Your task to perform on an android device: View the shopping cart on ebay.com. Image 0: 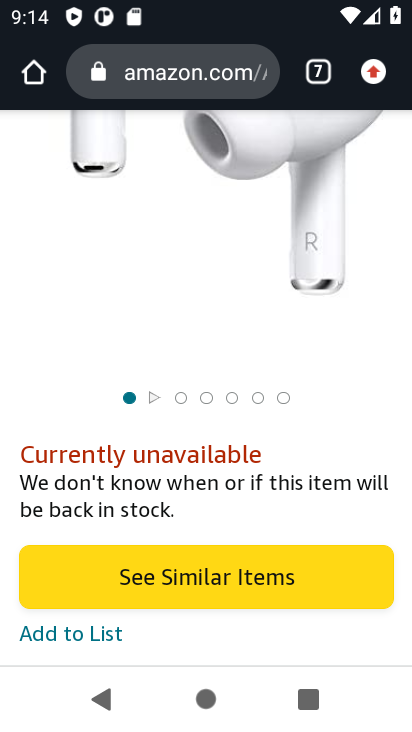
Step 0: press home button
Your task to perform on an android device: View the shopping cart on ebay.com. Image 1: 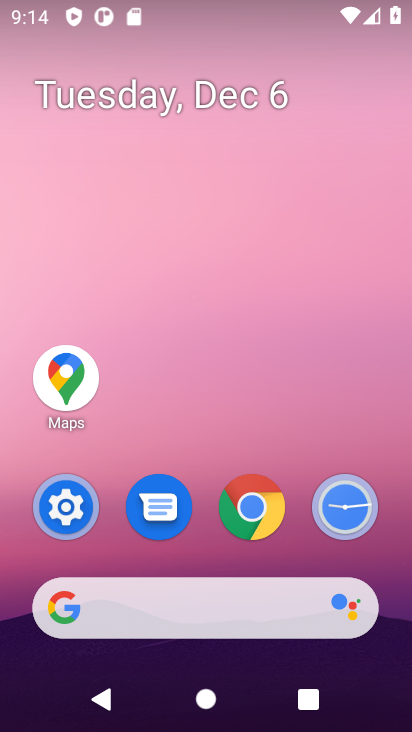
Step 1: click (106, 602)
Your task to perform on an android device: View the shopping cart on ebay.com. Image 2: 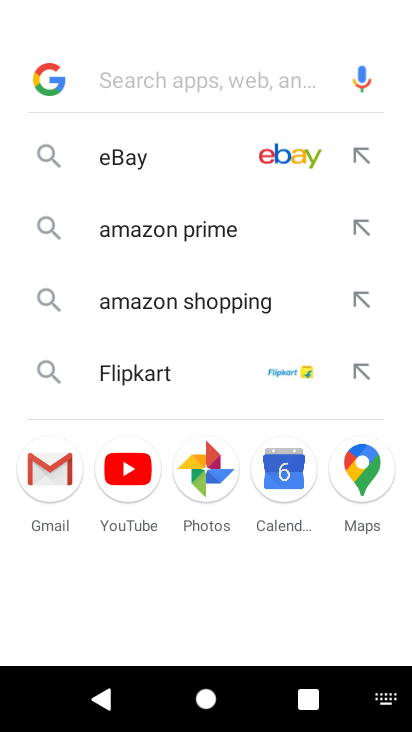
Step 2: click (150, 161)
Your task to perform on an android device: View the shopping cart on ebay.com. Image 3: 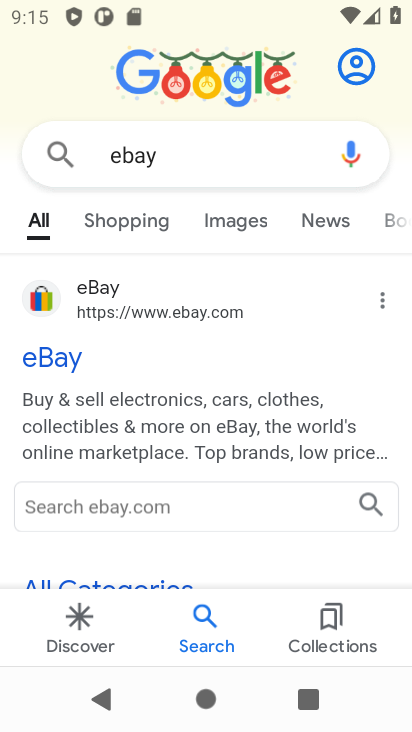
Step 3: click (53, 359)
Your task to perform on an android device: View the shopping cart on ebay.com. Image 4: 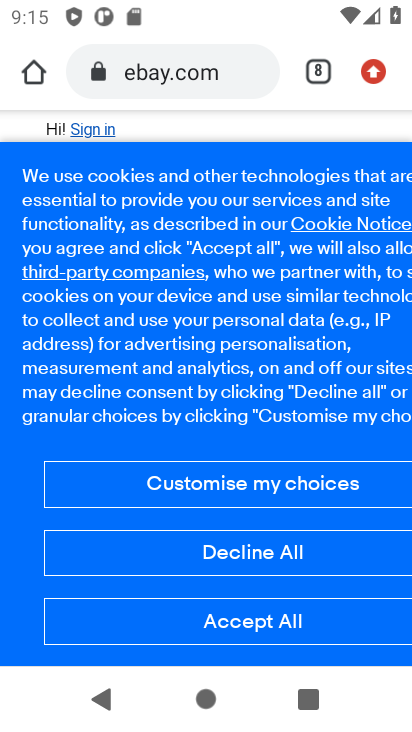
Step 4: click (291, 628)
Your task to perform on an android device: View the shopping cart on ebay.com. Image 5: 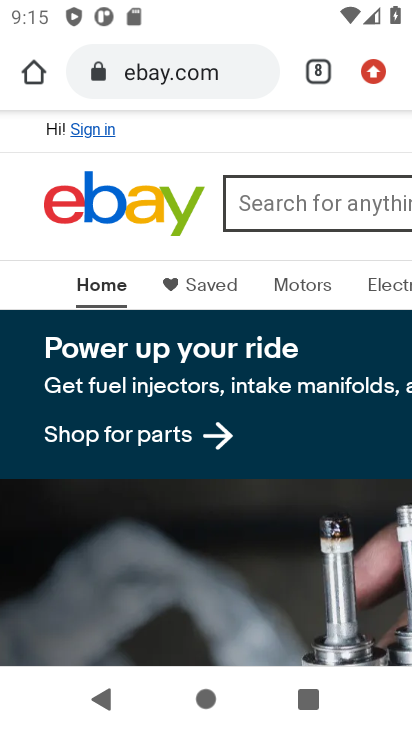
Step 5: drag from (186, 236) to (24, 216)
Your task to perform on an android device: View the shopping cart on ebay.com. Image 6: 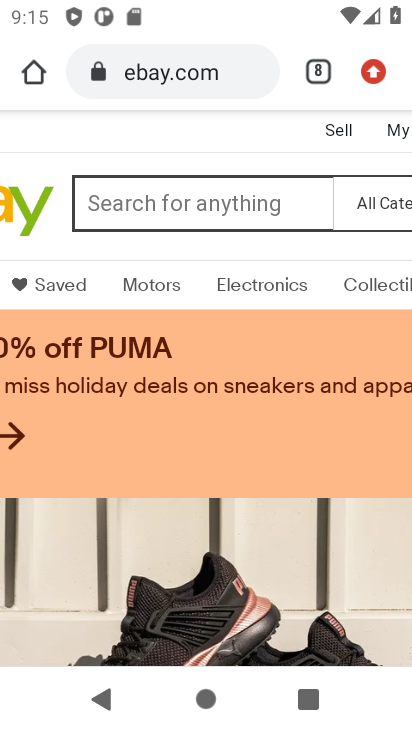
Step 6: drag from (358, 244) to (63, 242)
Your task to perform on an android device: View the shopping cart on ebay.com. Image 7: 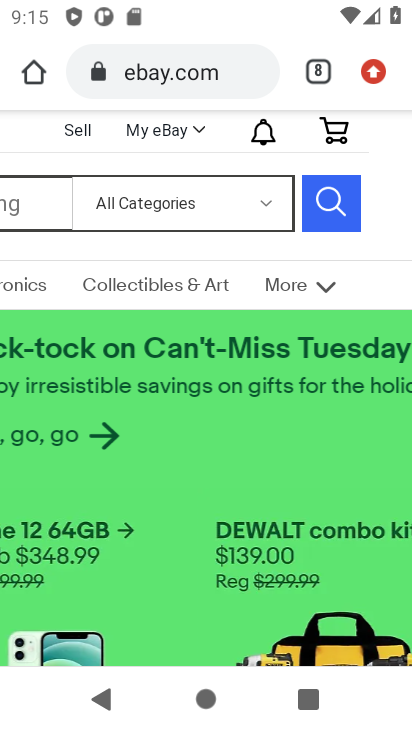
Step 7: click (330, 130)
Your task to perform on an android device: View the shopping cart on ebay.com. Image 8: 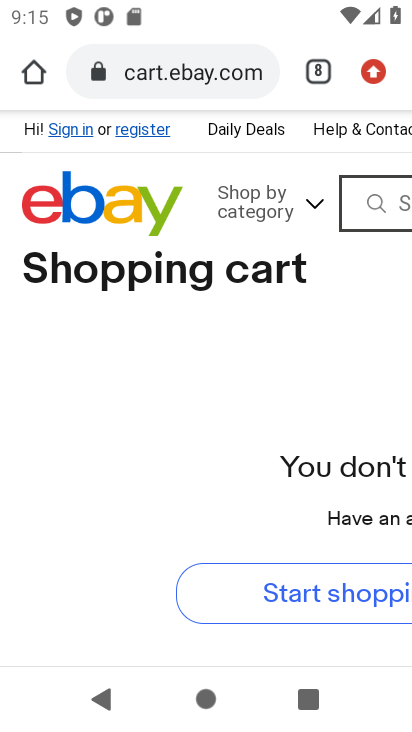
Step 8: task complete